Your task to perform on an android device: Open Youtube and go to the subscriptions tab Image 0: 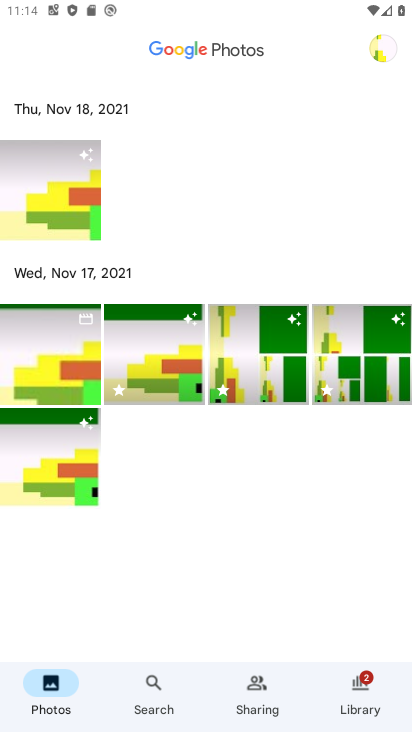
Step 0: press home button
Your task to perform on an android device: Open Youtube and go to the subscriptions tab Image 1: 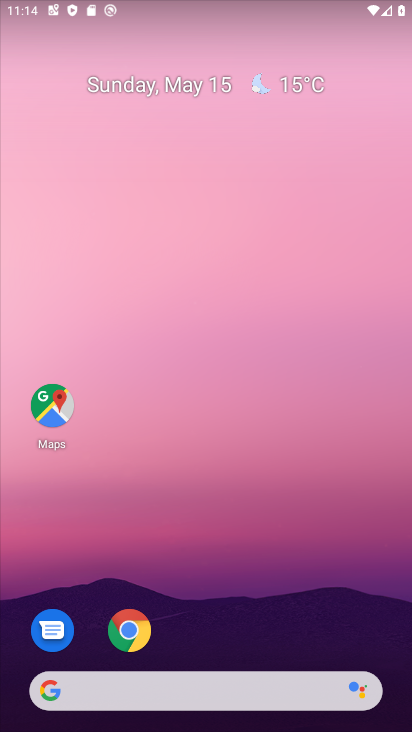
Step 1: drag from (197, 729) to (201, 97)
Your task to perform on an android device: Open Youtube and go to the subscriptions tab Image 2: 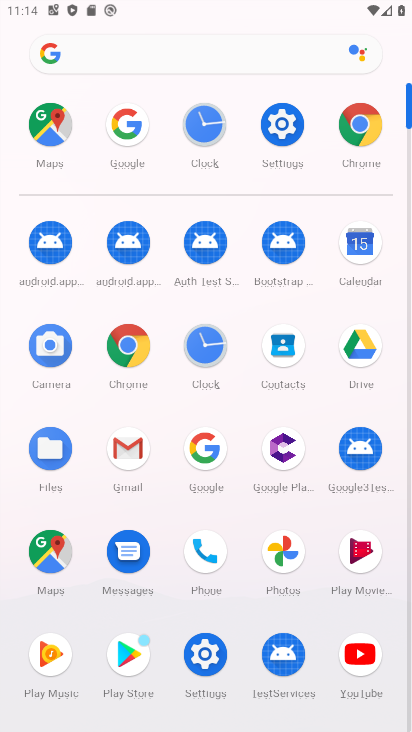
Step 2: click (362, 649)
Your task to perform on an android device: Open Youtube and go to the subscriptions tab Image 3: 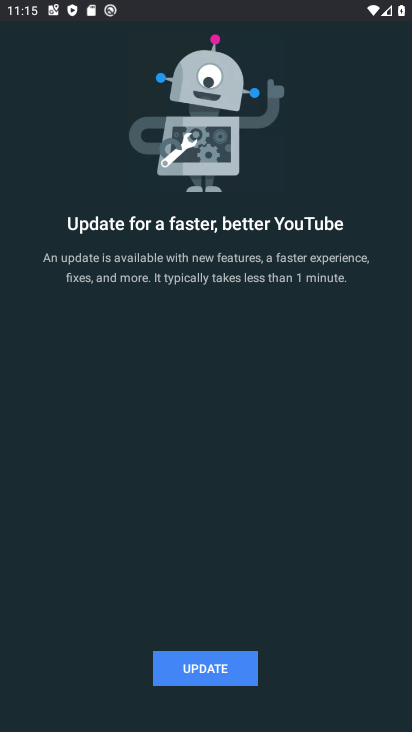
Step 3: task complete